Your task to perform on an android device: Add "bose soundsport free" to the cart on costco Image 0: 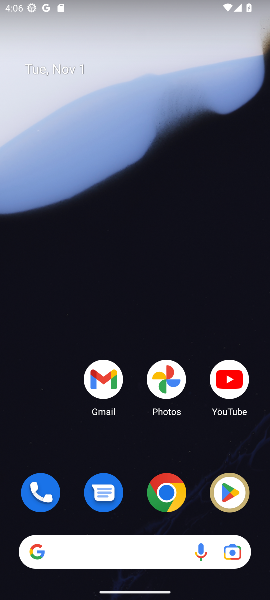
Step 0: click (163, 496)
Your task to perform on an android device: Add "bose soundsport free" to the cart on costco Image 1: 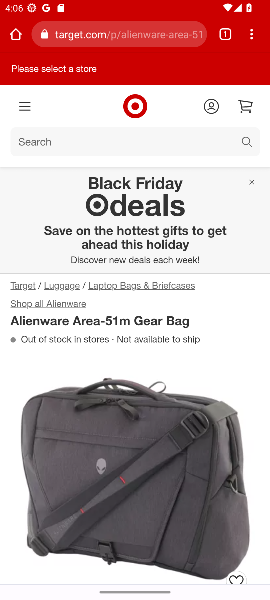
Step 1: click (146, 19)
Your task to perform on an android device: Add "bose soundsport free" to the cart on costco Image 2: 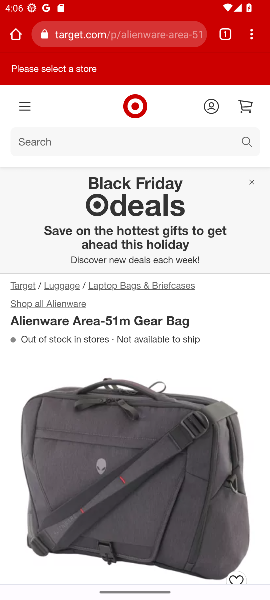
Step 2: click (131, 44)
Your task to perform on an android device: Add "bose soundsport free" to the cart on costco Image 3: 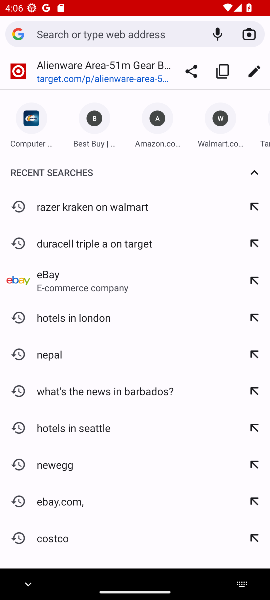
Step 3: type "costco"
Your task to perform on an android device: Add "bose soundsport free" to the cart on costco Image 4: 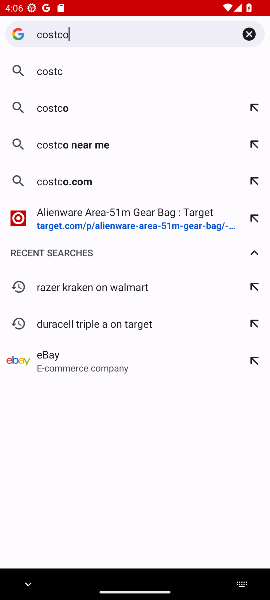
Step 4: type ""
Your task to perform on an android device: Add "bose soundsport free" to the cart on costco Image 5: 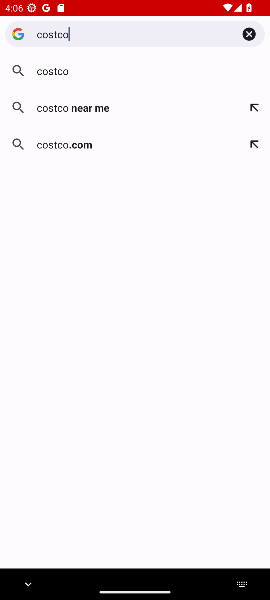
Step 5: click (74, 151)
Your task to perform on an android device: Add "bose soundsport free" to the cart on costco Image 6: 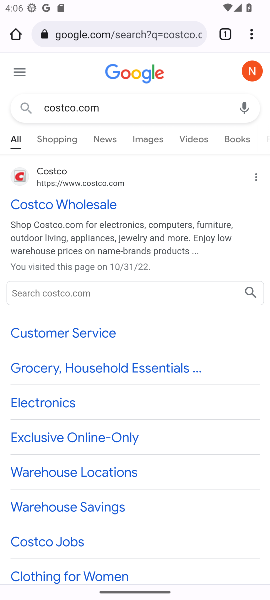
Step 6: click (70, 194)
Your task to perform on an android device: Add "bose soundsport free" to the cart on costco Image 7: 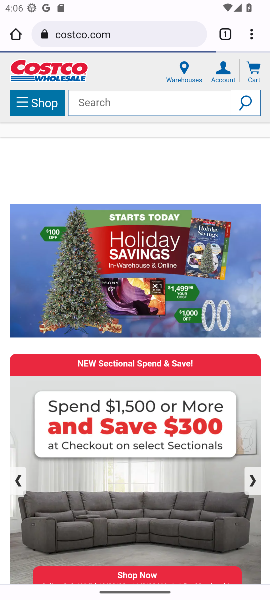
Step 7: click (100, 102)
Your task to perform on an android device: Add "bose soundsport free" to the cart on costco Image 8: 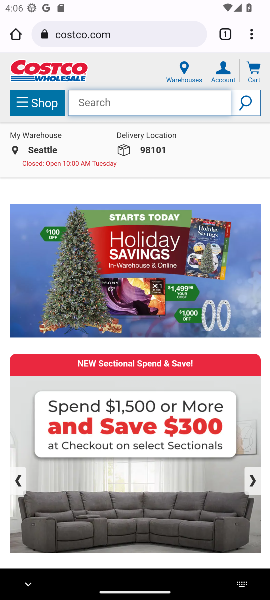
Step 8: type "bose soundsport free"
Your task to perform on an android device: Add "bose soundsport free" to the cart on costco Image 9: 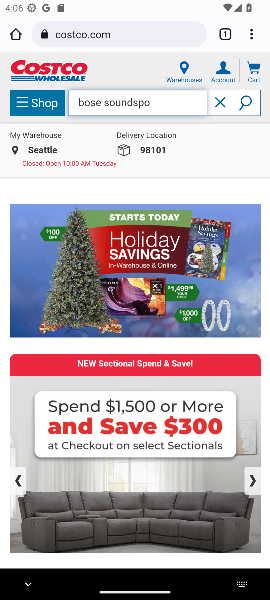
Step 9: type ""
Your task to perform on an android device: Add "bose soundsport free" to the cart on costco Image 10: 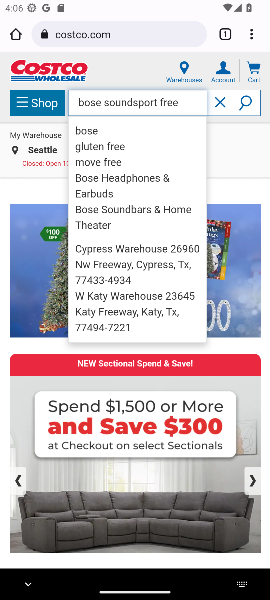
Step 10: press enter
Your task to perform on an android device: Add "bose soundsport free" to the cart on costco Image 11: 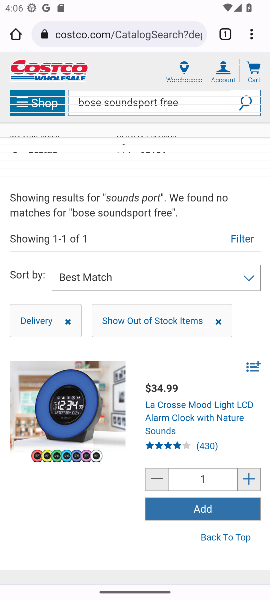
Step 11: drag from (219, 440) to (234, 111)
Your task to perform on an android device: Add "bose soundsport free" to the cart on costco Image 12: 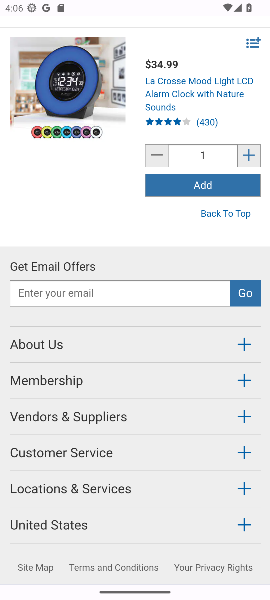
Step 12: drag from (161, 143) to (99, 509)
Your task to perform on an android device: Add "bose soundsport free" to the cart on costco Image 13: 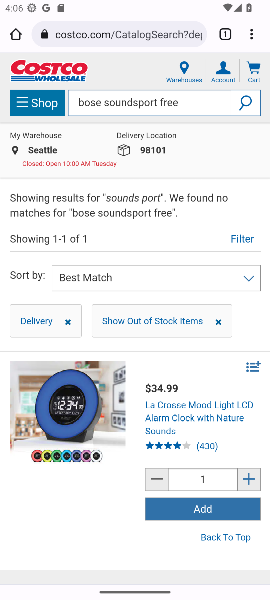
Step 13: click (246, 99)
Your task to perform on an android device: Add "bose soundsport free" to the cart on costco Image 14: 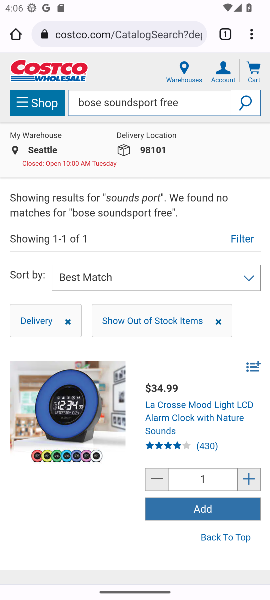
Step 14: click (197, 99)
Your task to perform on an android device: Add "bose soundsport free" to the cart on costco Image 15: 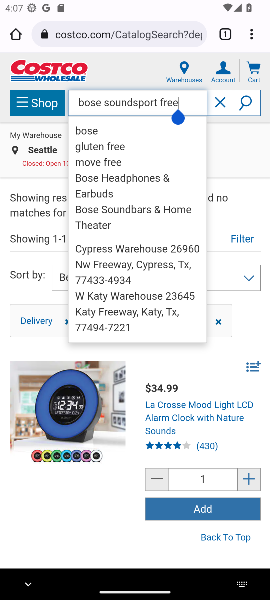
Step 15: click (115, 178)
Your task to perform on an android device: Add "bose soundsport free" to the cart on costco Image 16: 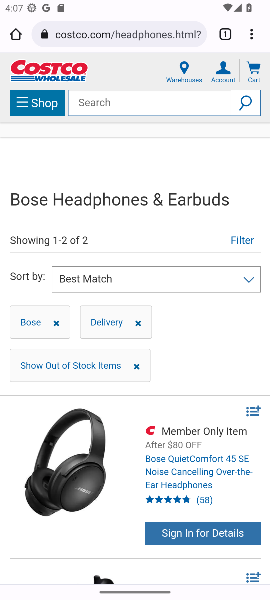
Step 16: drag from (138, 451) to (136, 191)
Your task to perform on an android device: Add "bose soundsport free" to the cart on costco Image 17: 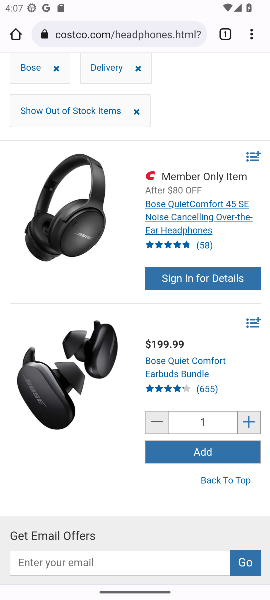
Step 17: drag from (117, 328) to (129, 192)
Your task to perform on an android device: Add "bose soundsport free" to the cart on costco Image 18: 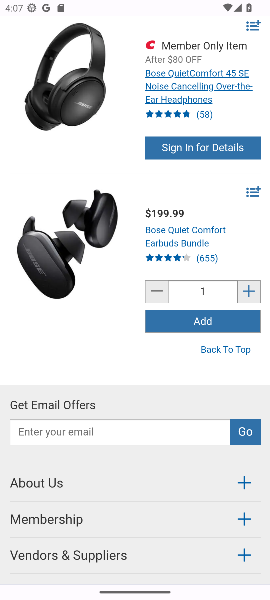
Step 18: drag from (118, 411) to (137, 574)
Your task to perform on an android device: Add "bose soundsport free" to the cart on costco Image 19: 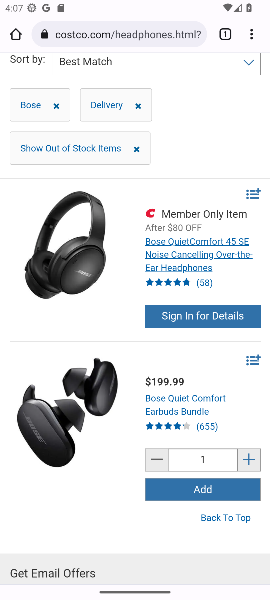
Step 19: drag from (162, 75) to (205, 370)
Your task to perform on an android device: Add "bose soundsport free" to the cart on costco Image 20: 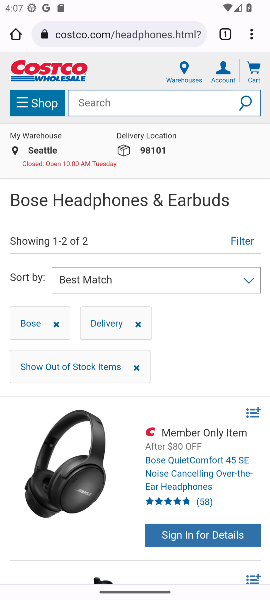
Step 20: click (137, 107)
Your task to perform on an android device: Add "bose soundsport free" to the cart on costco Image 21: 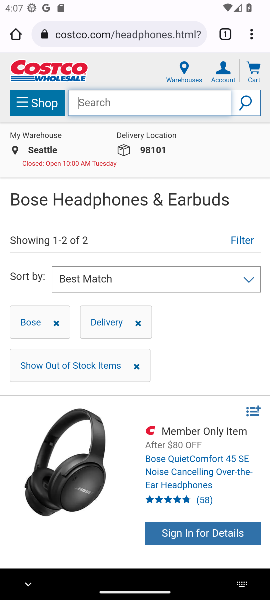
Step 21: type "bose soundsport free"
Your task to perform on an android device: Add "bose soundsport free" to the cart on costco Image 22: 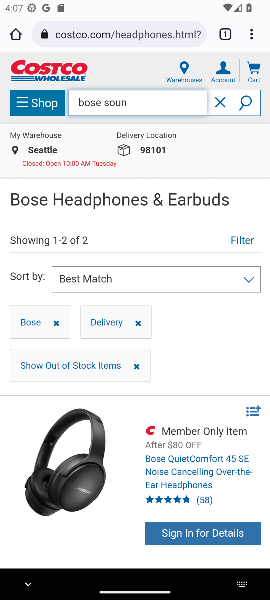
Step 22: type ""
Your task to perform on an android device: Add "bose soundsport free" to the cart on costco Image 23: 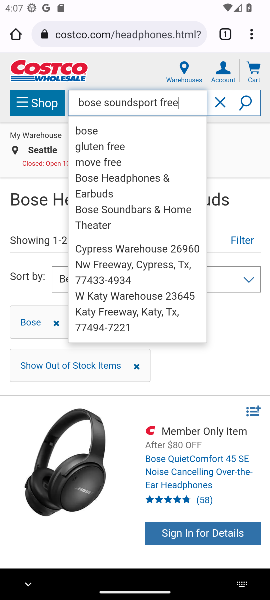
Step 23: click (241, 96)
Your task to perform on an android device: Add "bose soundsport free" to the cart on costco Image 24: 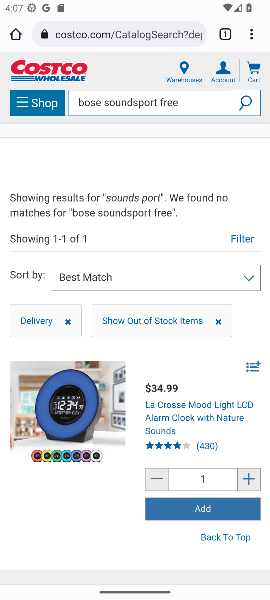
Step 24: click (220, 272)
Your task to perform on an android device: Add "bose soundsport free" to the cart on costco Image 25: 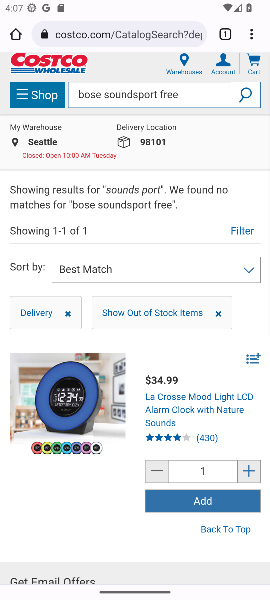
Step 25: task complete